Your task to perform on an android device: Check the news Image 0: 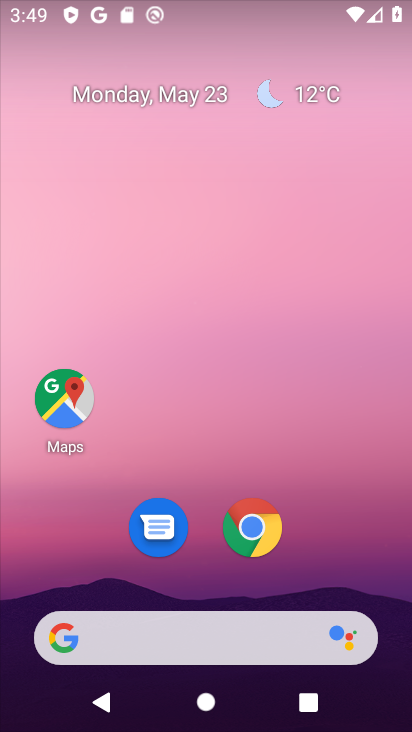
Step 0: drag from (206, 575) to (251, 172)
Your task to perform on an android device: Check the news Image 1: 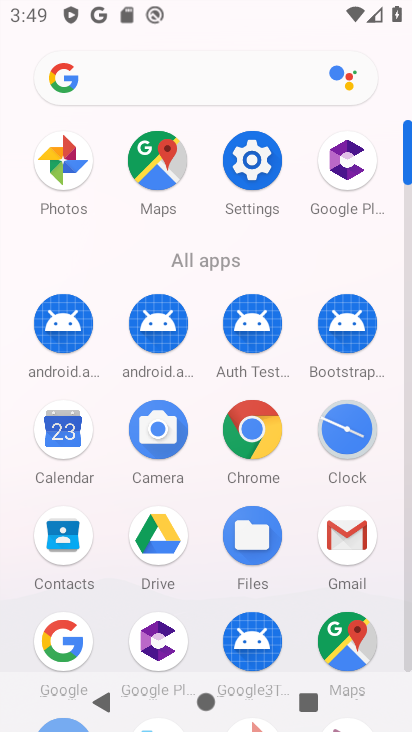
Step 1: task complete